Your task to perform on an android device: turn on notifications settings in the gmail app Image 0: 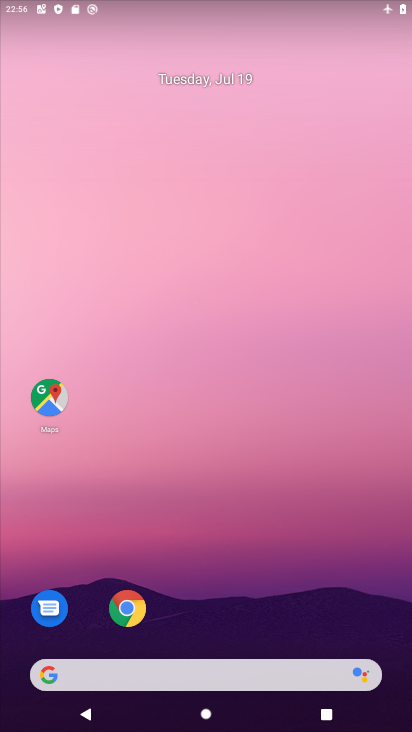
Step 0: drag from (371, 566) to (291, 16)
Your task to perform on an android device: turn on notifications settings in the gmail app Image 1: 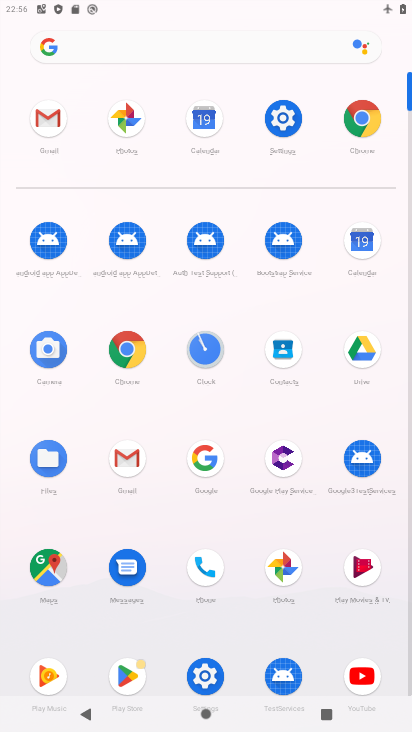
Step 1: click (44, 125)
Your task to perform on an android device: turn on notifications settings in the gmail app Image 2: 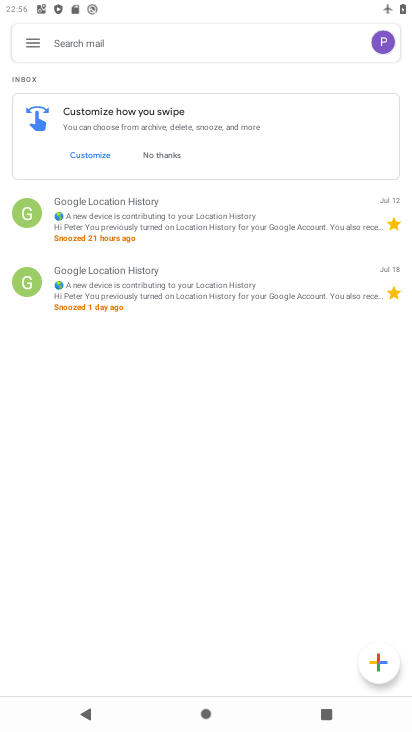
Step 2: click (28, 35)
Your task to perform on an android device: turn on notifications settings in the gmail app Image 3: 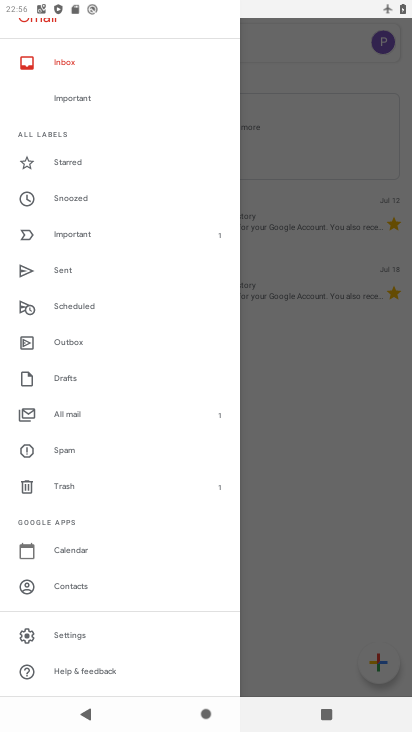
Step 3: click (88, 633)
Your task to perform on an android device: turn on notifications settings in the gmail app Image 4: 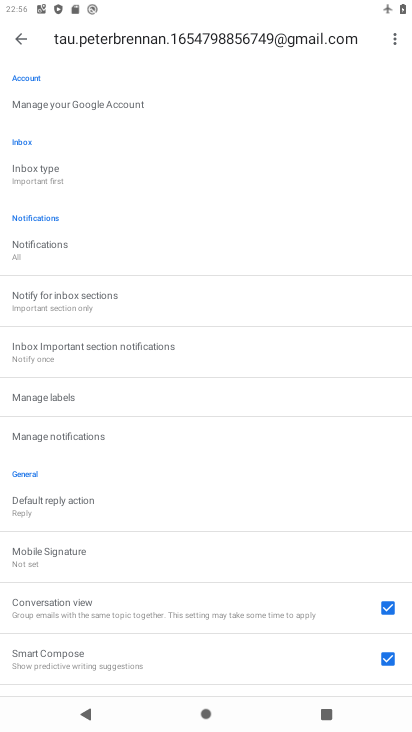
Step 4: click (79, 433)
Your task to perform on an android device: turn on notifications settings in the gmail app Image 5: 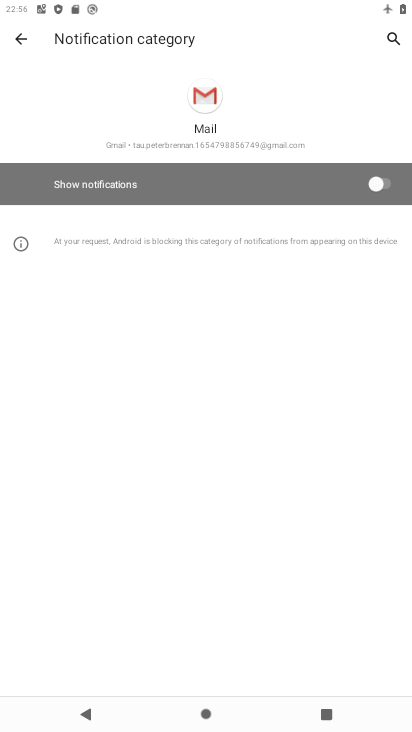
Step 5: click (394, 189)
Your task to perform on an android device: turn on notifications settings in the gmail app Image 6: 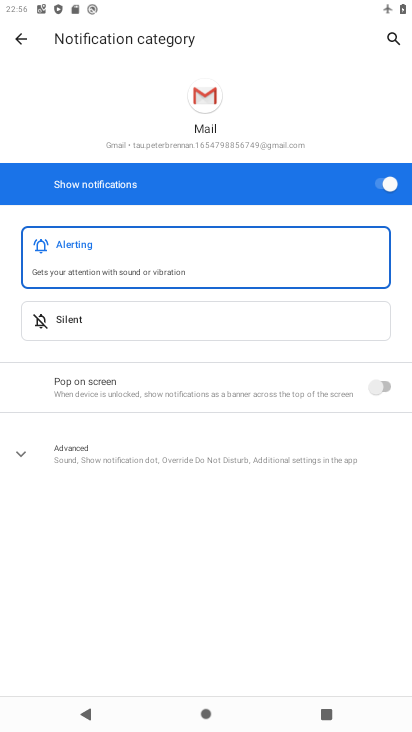
Step 6: task complete